Your task to perform on an android device: Toggle the flashlight Image 0: 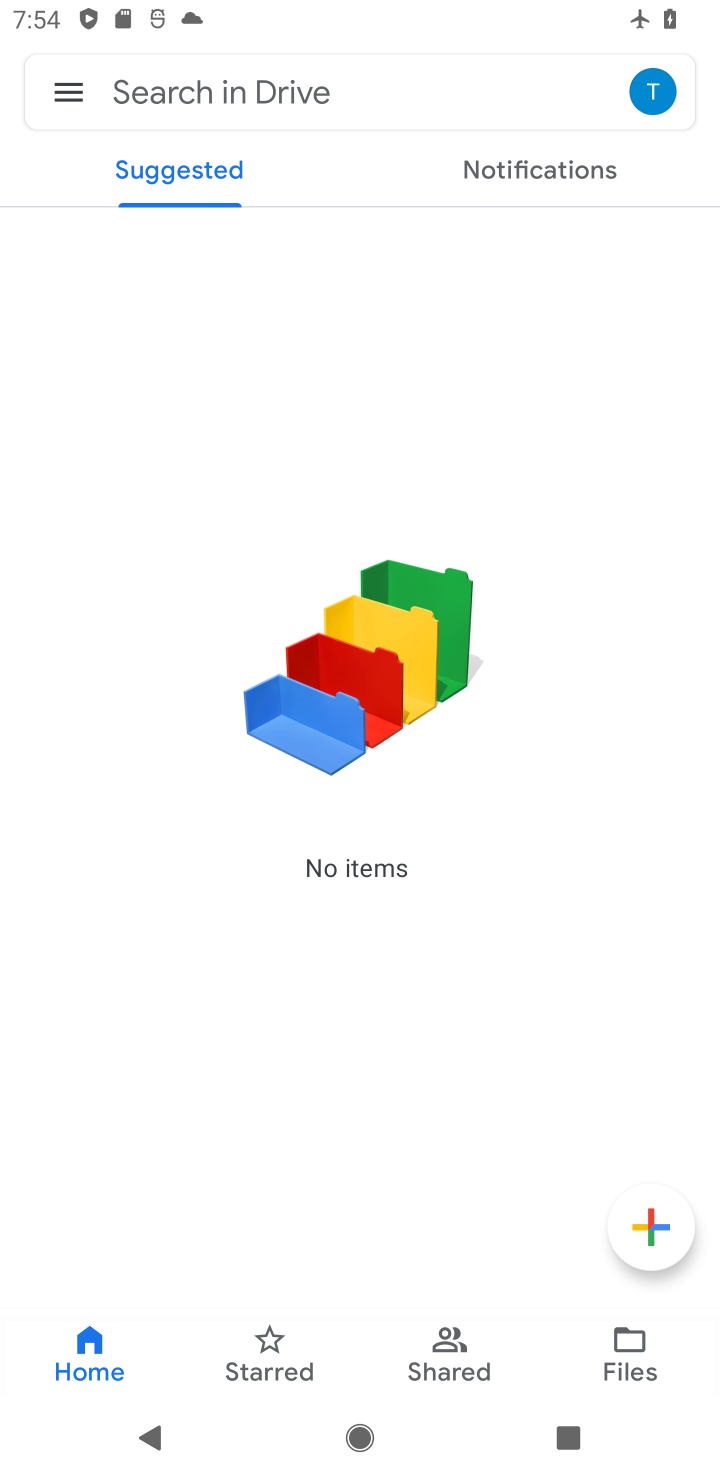
Step 0: press home button
Your task to perform on an android device: Toggle the flashlight Image 1: 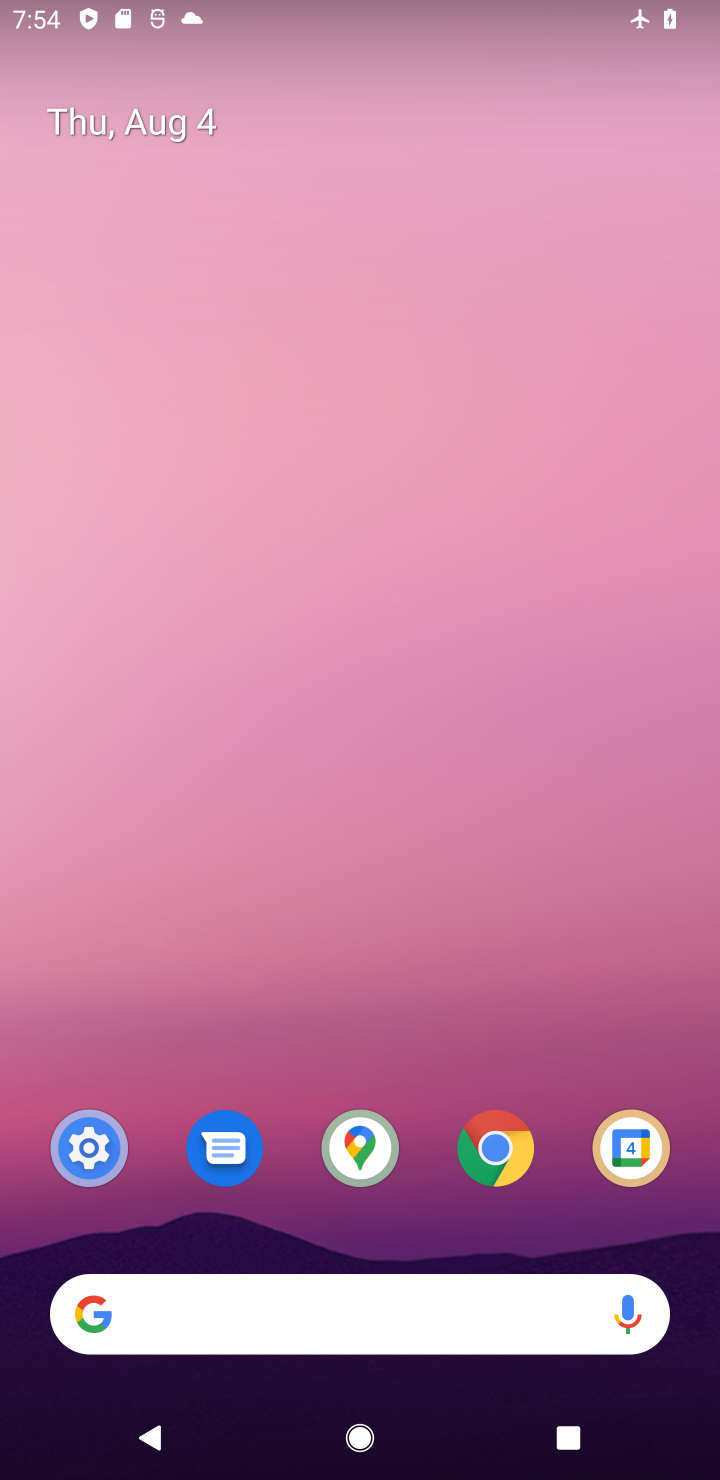
Step 1: drag from (279, 21) to (345, 914)
Your task to perform on an android device: Toggle the flashlight Image 2: 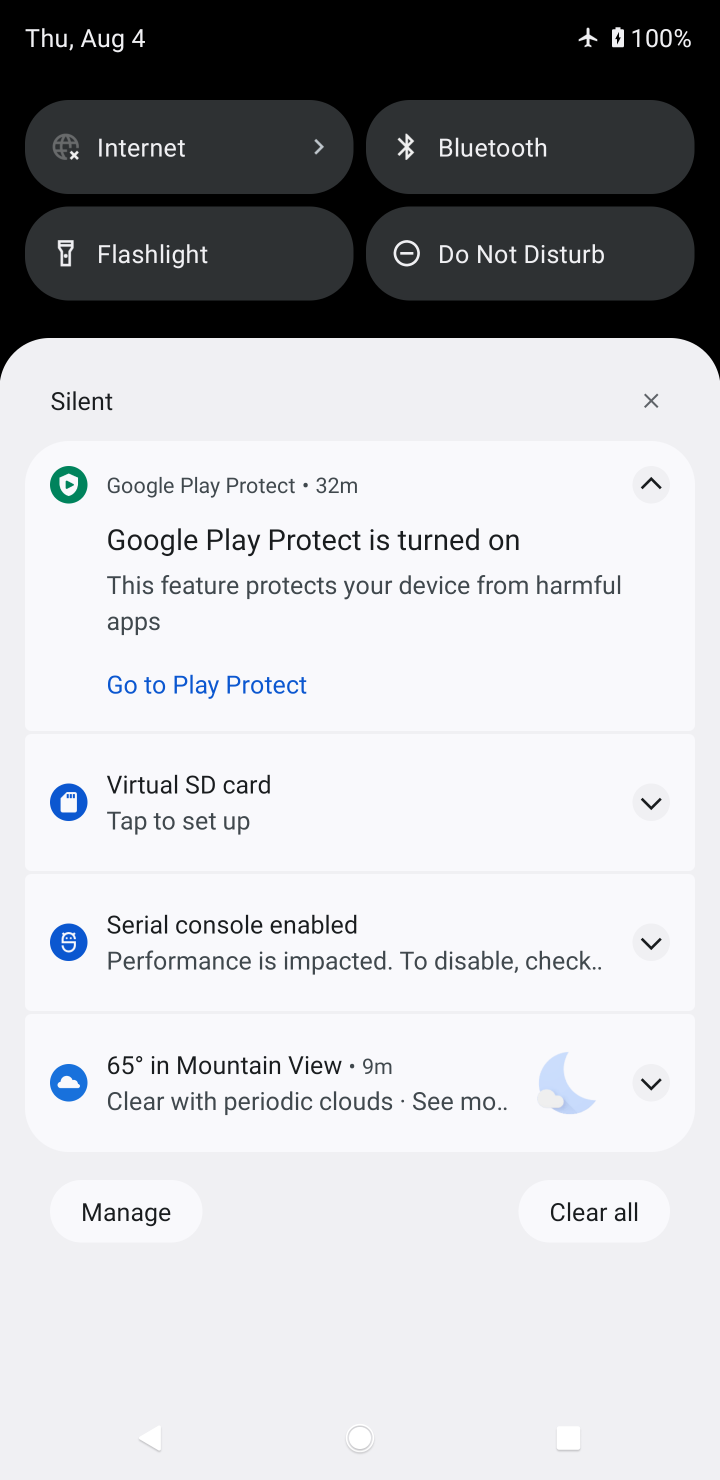
Step 2: drag from (319, 314) to (356, 1145)
Your task to perform on an android device: Toggle the flashlight Image 3: 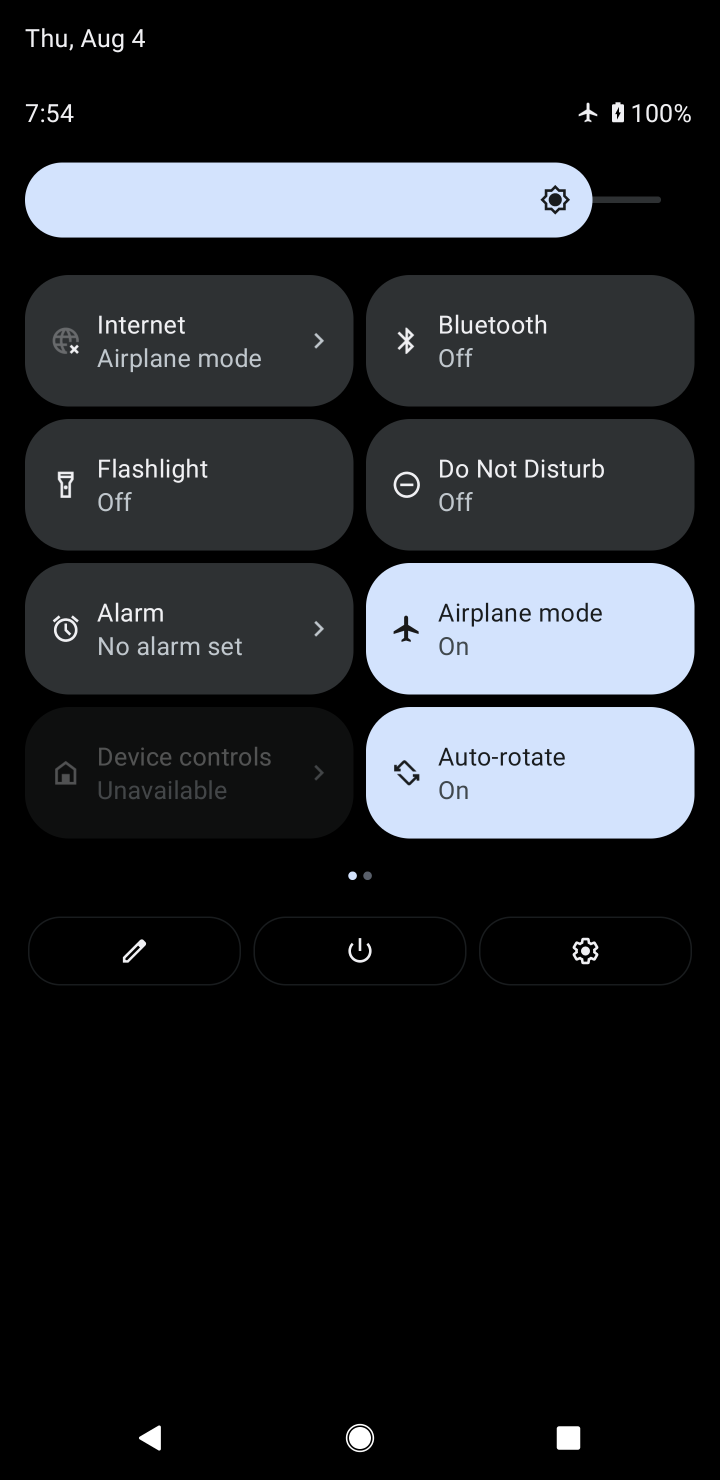
Step 3: click (171, 522)
Your task to perform on an android device: Toggle the flashlight Image 4: 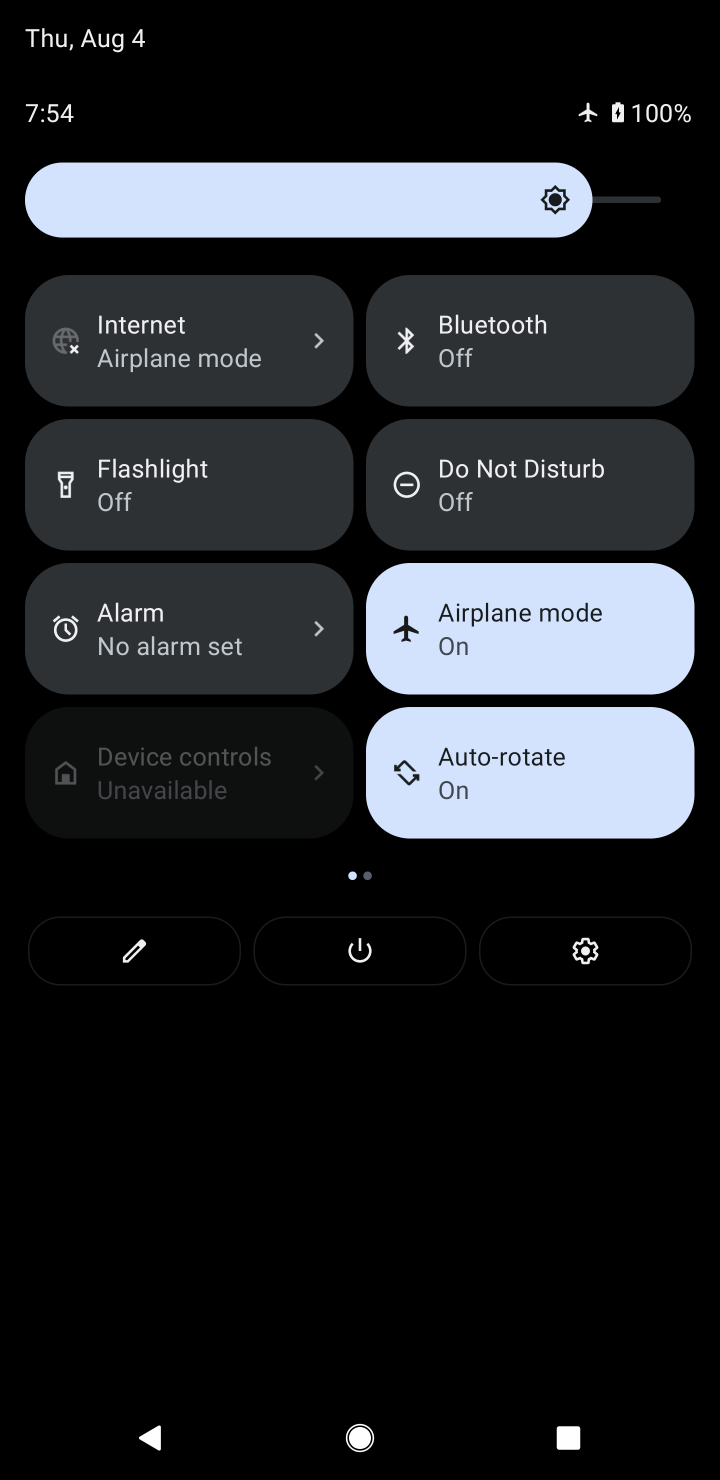
Step 4: click (170, 522)
Your task to perform on an android device: Toggle the flashlight Image 5: 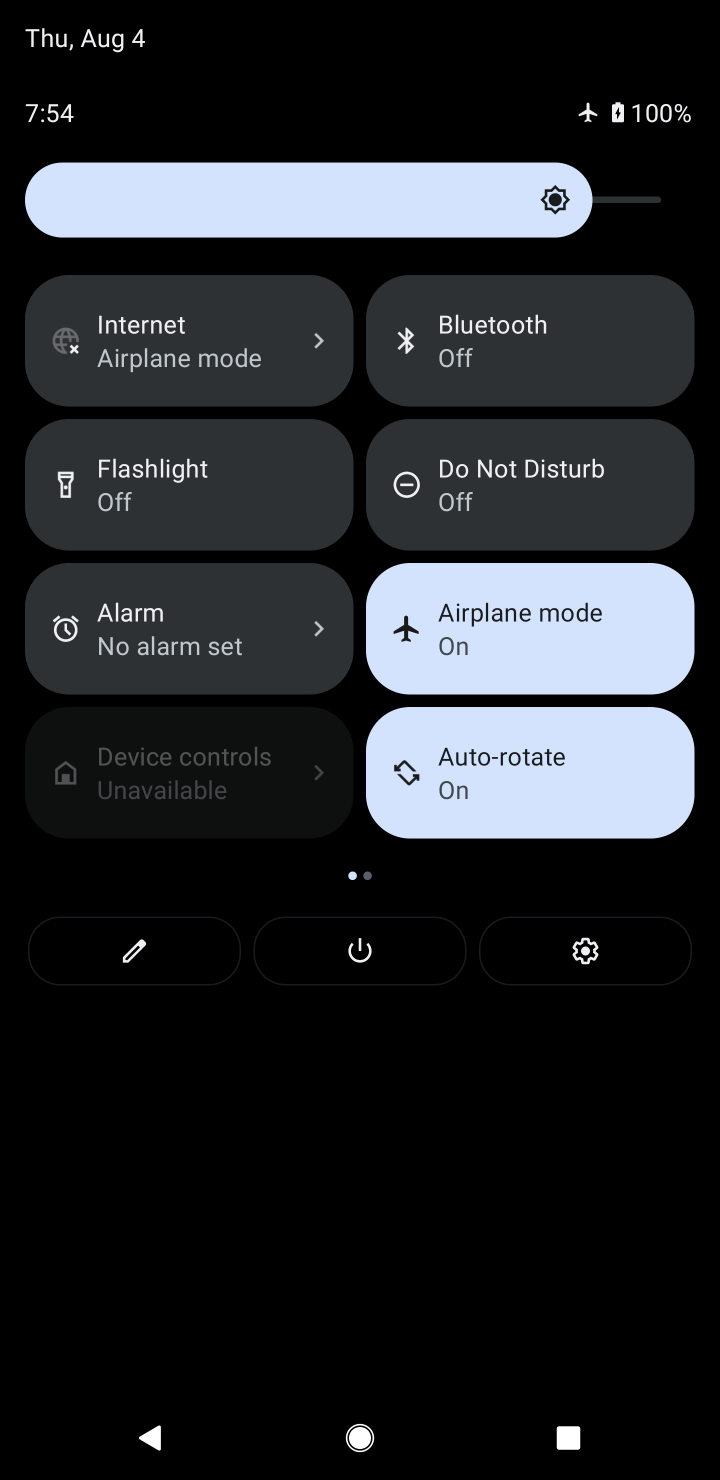
Step 5: task complete